Your task to perform on an android device: add a contact Image 0: 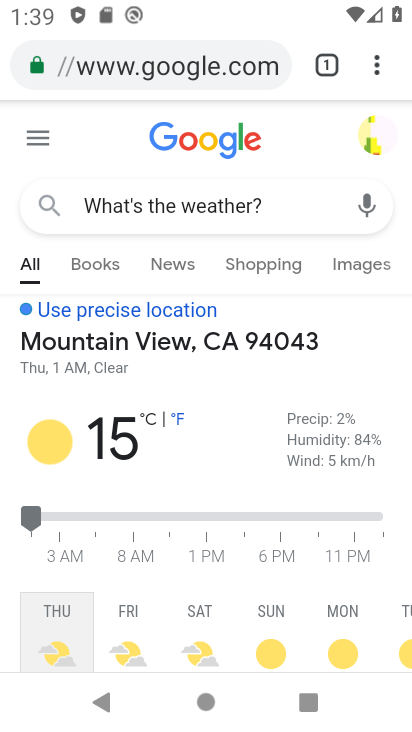
Step 0: press home button
Your task to perform on an android device: add a contact Image 1: 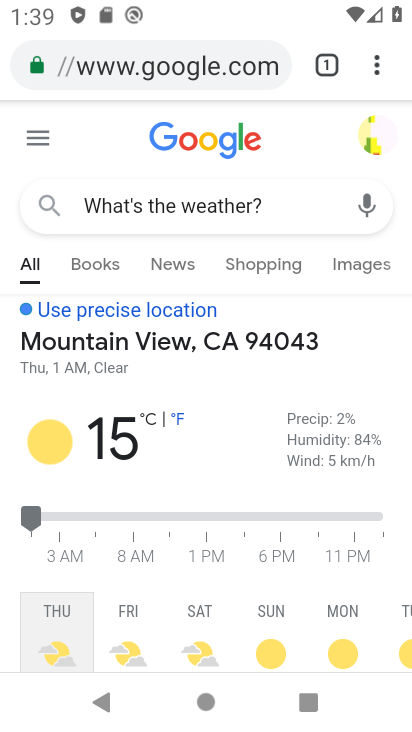
Step 1: press home button
Your task to perform on an android device: add a contact Image 2: 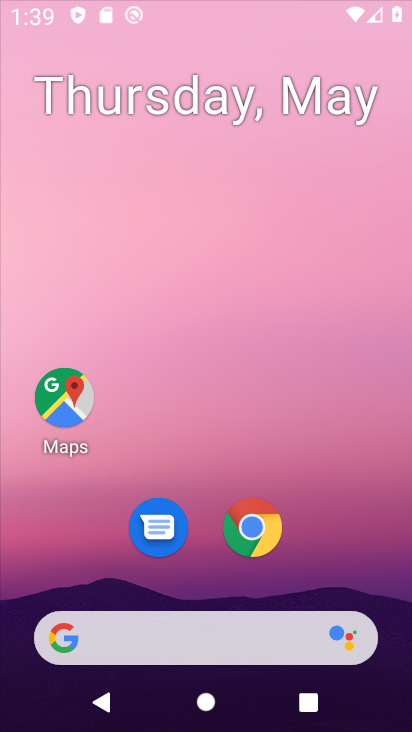
Step 2: press home button
Your task to perform on an android device: add a contact Image 3: 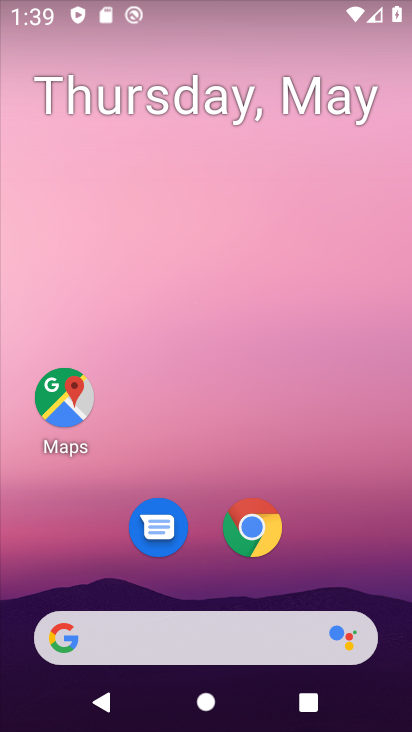
Step 3: drag from (334, 572) to (338, 54)
Your task to perform on an android device: add a contact Image 4: 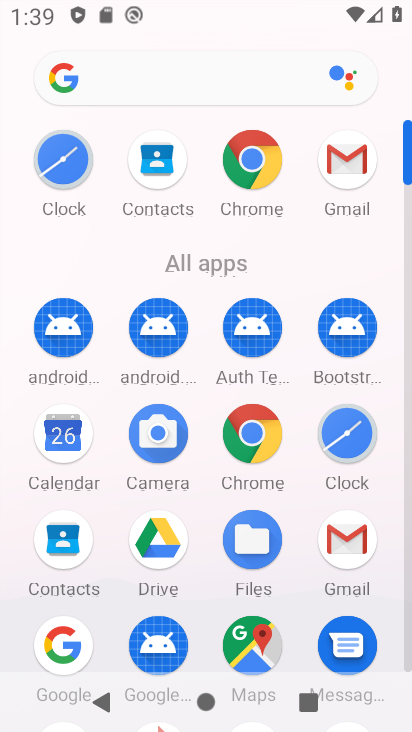
Step 4: click (129, 150)
Your task to perform on an android device: add a contact Image 5: 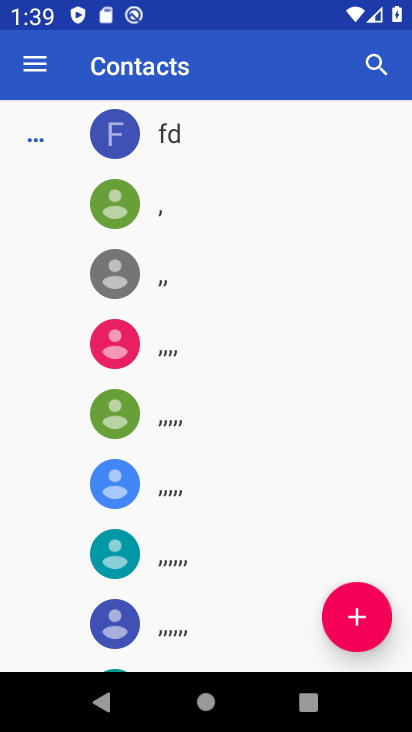
Step 5: click (374, 615)
Your task to perform on an android device: add a contact Image 6: 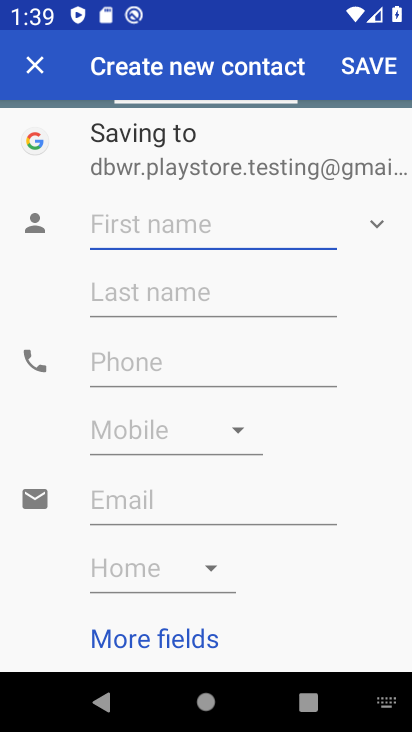
Step 6: type "aaaaa"
Your task to perform on an android device: add a contact Image 7: 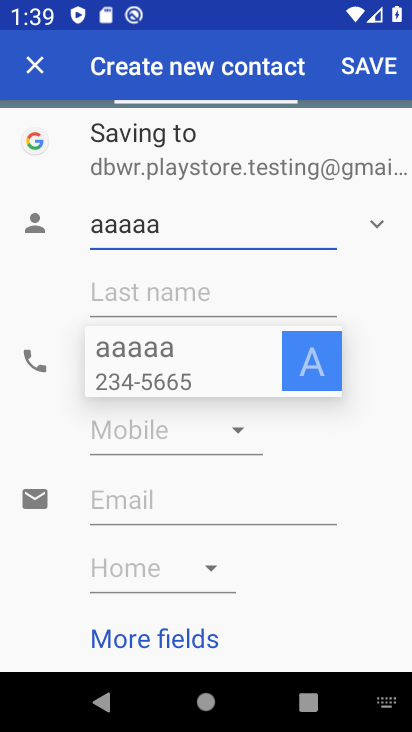
Step 7: click (403, 422)
Your task to perform on an android device: add a contact Image 8: 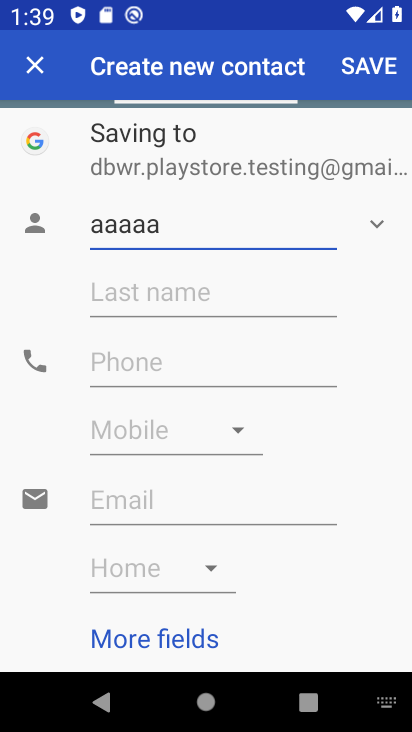
Step 8: click (152, 371)
Your task to perform on an android device: add a contact Image 9: 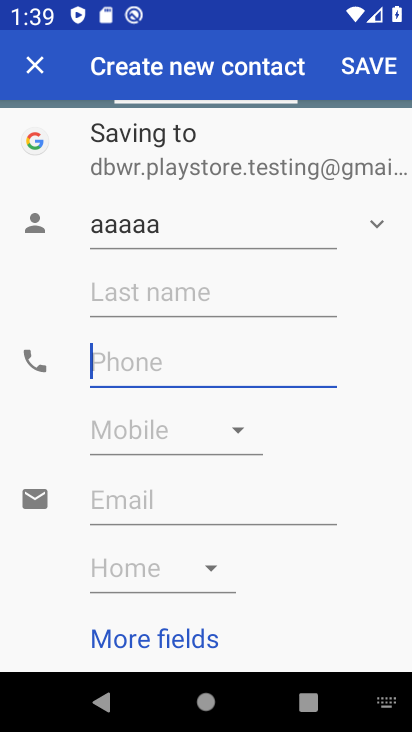
Step 9: click (223, 369)
Your task to perform on an android device: add a contact Image 10: 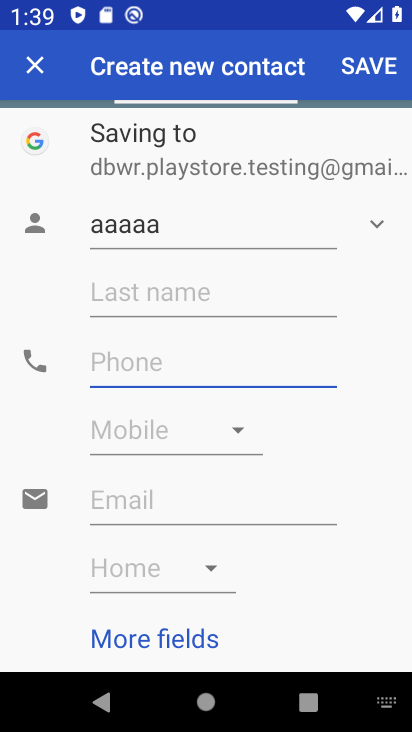
Step 10: type ",,,,,,l;;;[[[[[[-098765"
Your task to perform on an android device: add a contact Image 11: 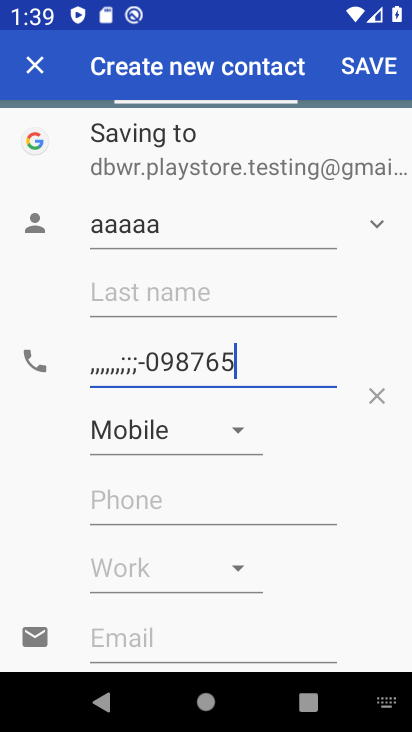
Step 11: click (362, 67)
Your task to perform on an android device: add a contact Image 12: 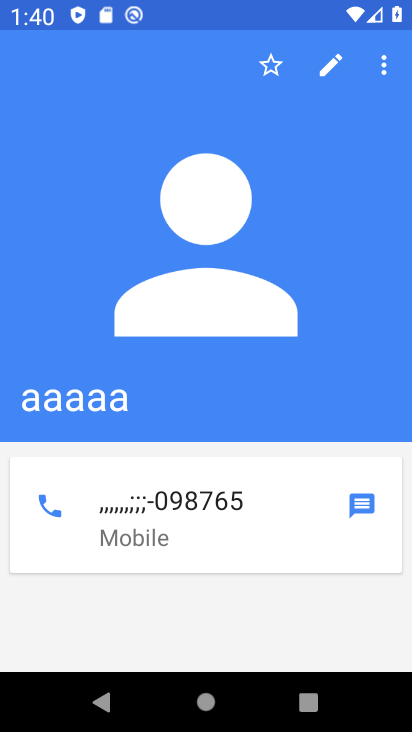
Step 12: task complete